Your task to perform on an android device: Search for pizza restaurants on Maps Image 0: 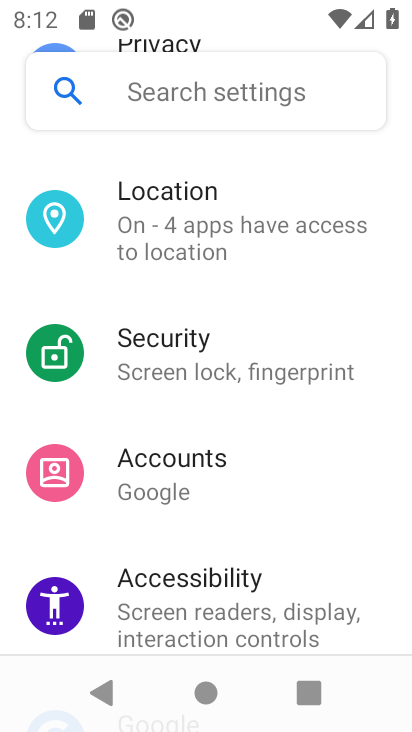
Step 0: press home button
Your task to perform on an android device: Search for pizza restaurants on Maps Image 1: 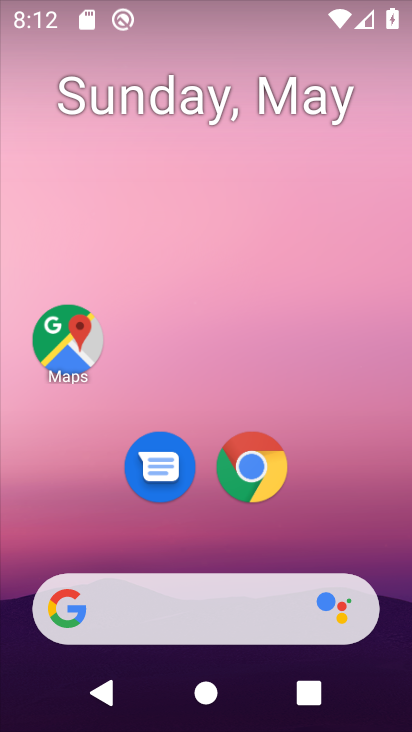
Step 1: drag from (338, 528) to (306, 98)
Your task to perform on an android device: Search for pizza restaurants on Maps Image 2: 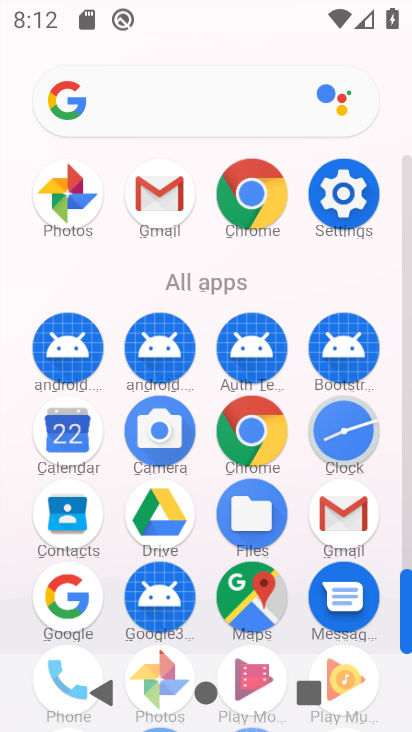
Step 2: click (238, 605)
Your task to perform on an android device: Search for pizza restaurants on Maps Image 3: 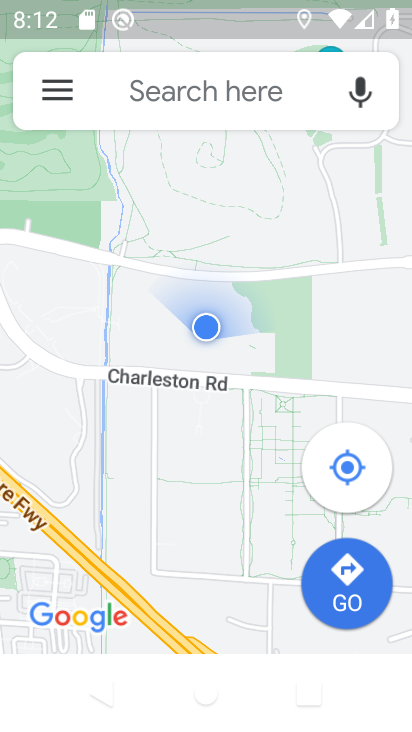
Step 3: click (278, 84)
Your task to perform on an android device: Search for pizza restaurants on Maps Image 4: 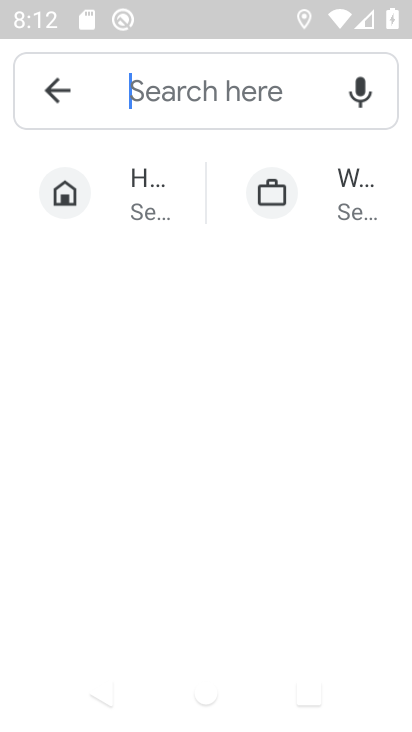
Step 4: click (234, 96)
Your task to perform on an android device: Search for pizza restaurants on Maps Image 5: 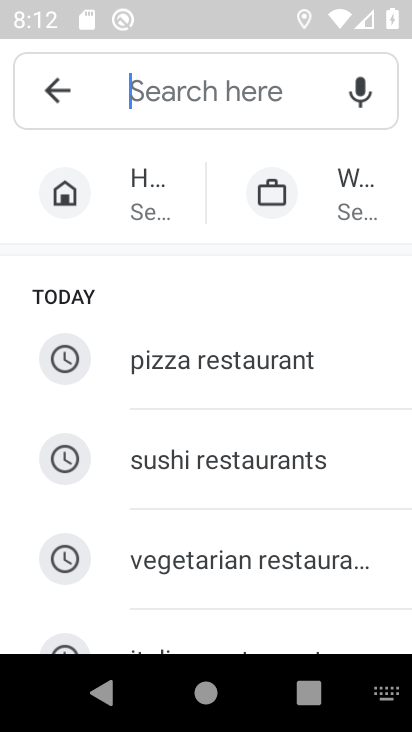
Step 5: click (293, 354)
Your task to perform on an android device: Search for pizza restaurants on Maps Image 6: 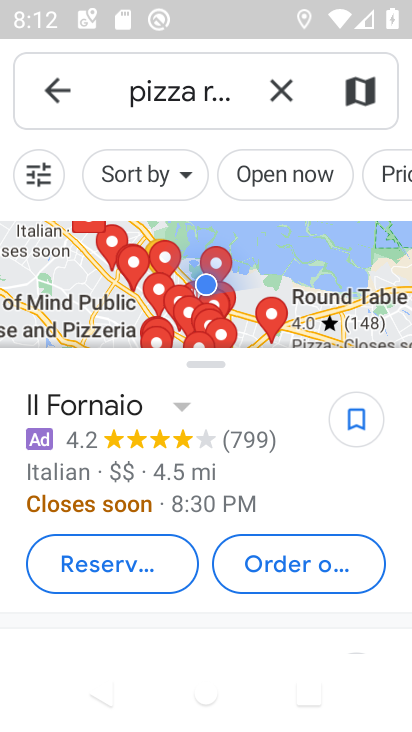
Step 6: task complete